Your task to perform on an android device: Clear the cart on ebay.com. Image 0: 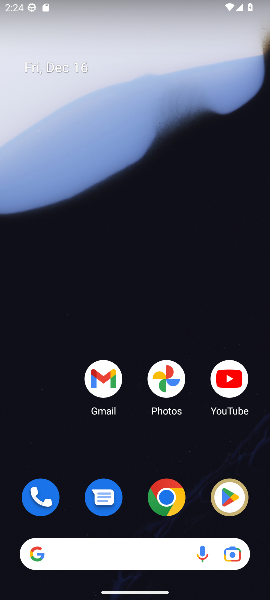
Step 0: click (165, 502)
Your task to perform on an android device: Clear the cart on ebay.com. Image 1: 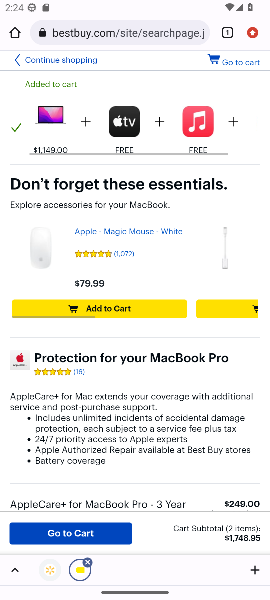
Step 1: click (139, 33)
Your task to perform on an android device: Clear the cart on ebay.com. Image 2: 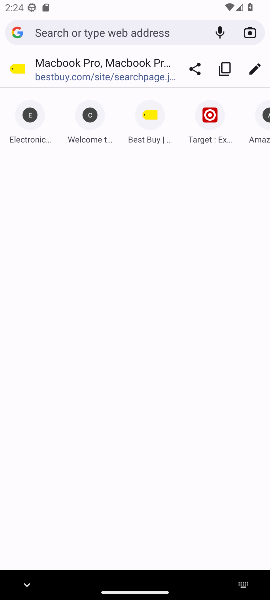
Step 2: type "ebay"
Your task to perform on an android device: Clear the cart on ebay.com. Image 3: 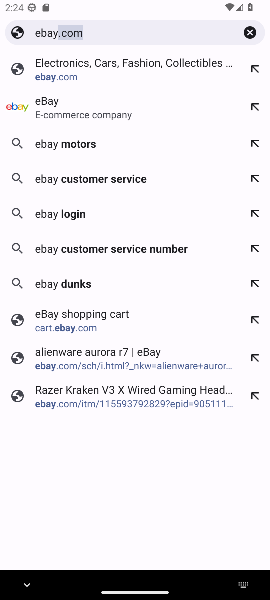
Step 3: click (82, 71)
Your task to perform on an android device: Clear the cart on ebay.com. Image 4: 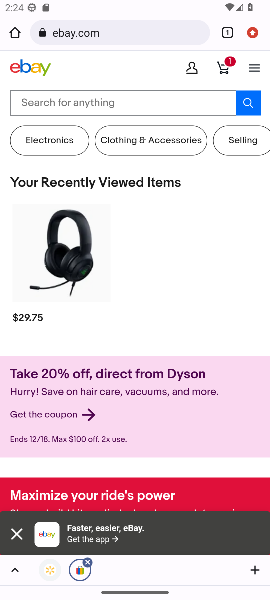
Step 4: click (228, 71)
Your task to perform on an android device: Clear the cart on ebay.com. Image 5: 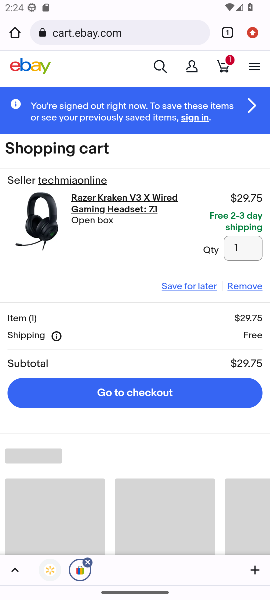
Step 5: click (248, 288)
Your task to perform on an android device: Clear the cart on ebay.com. Image 6: 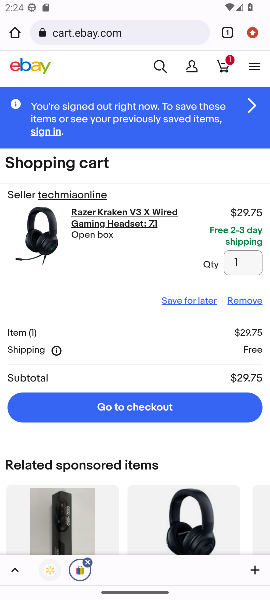
Step 6: task complete